Your task to perform on an android device: uninstall "Adobe Acrobat Reader" Image 0: 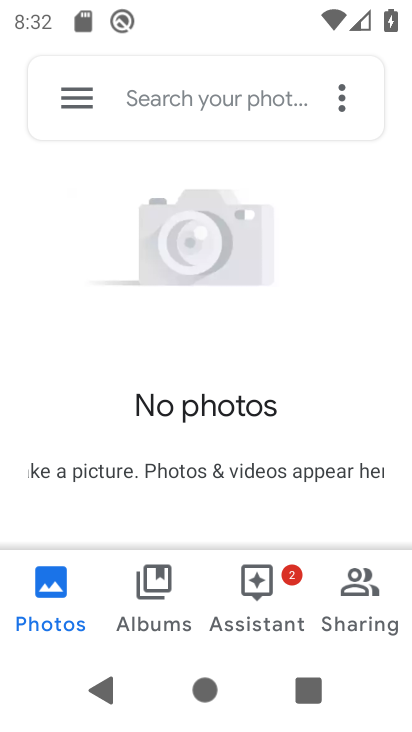
Step 0: press home button
Your task to perform on an android device: uninstall "Adobe Acrobat Reader" Image 1: 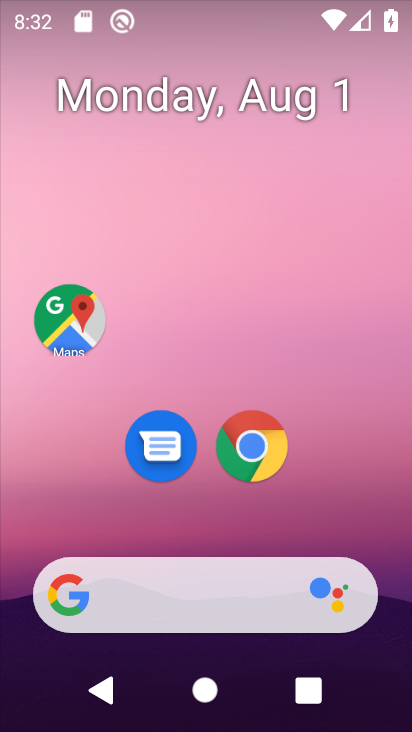
Step 1: drag from (163, 511) to (143, 117)
Your task to perform on an android device: uninstall "Adobe Acrobat Reader" Image 2: 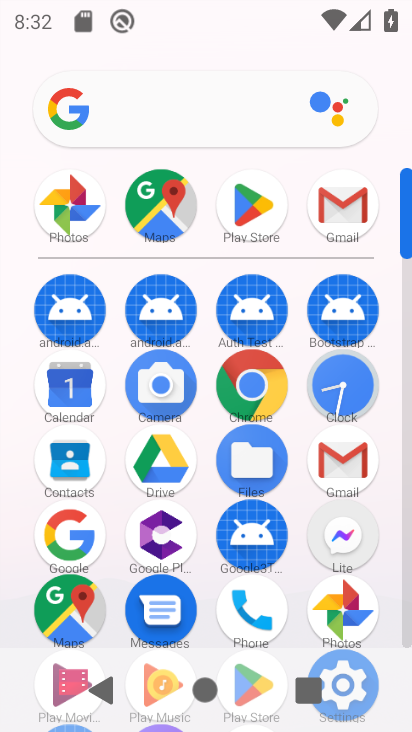
Step 2: click (249, 189)
Your task to perform on an android device: uninstall "Adobe Acrobat Reader" Image 3: 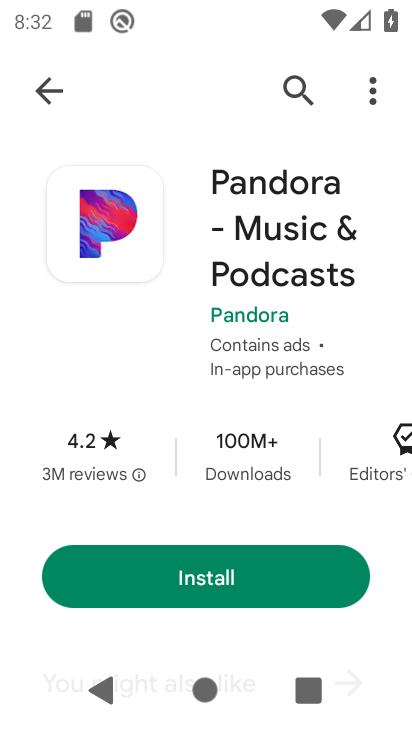
Step 3: click (342, 89)
Your task to perform on an android device: uninstall "Adobe Acrobat Reader" Image 4: 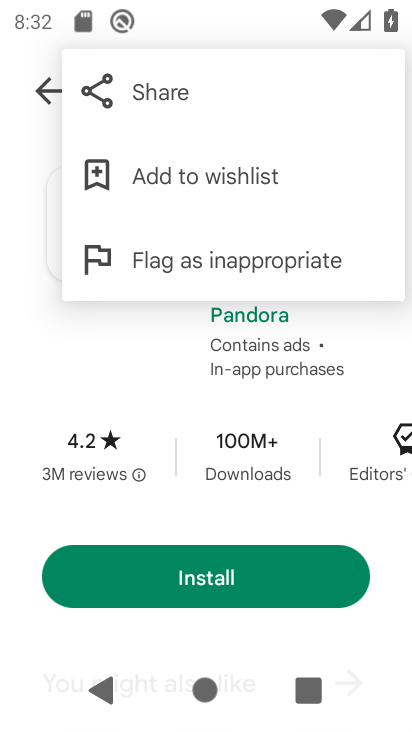
Step 4: click (32, 140)
Your task to perform on an android device: uninstall "Adobe Acrobat Reader" Image 5: 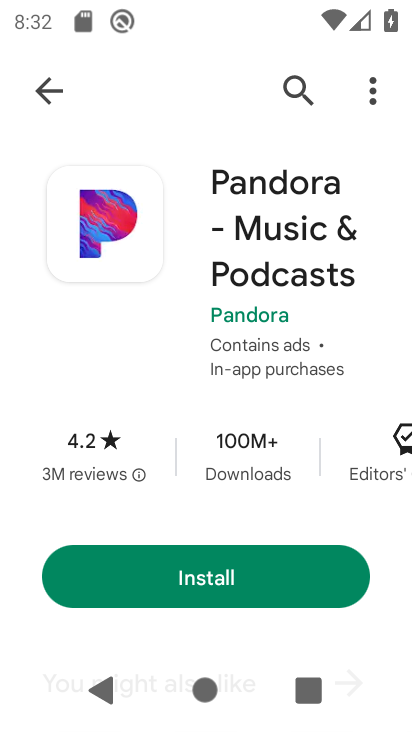
Step 5: click (282, 82)
Your task to perform on an android device: uninstall "Adobe Acrobat Reader" Image 6: 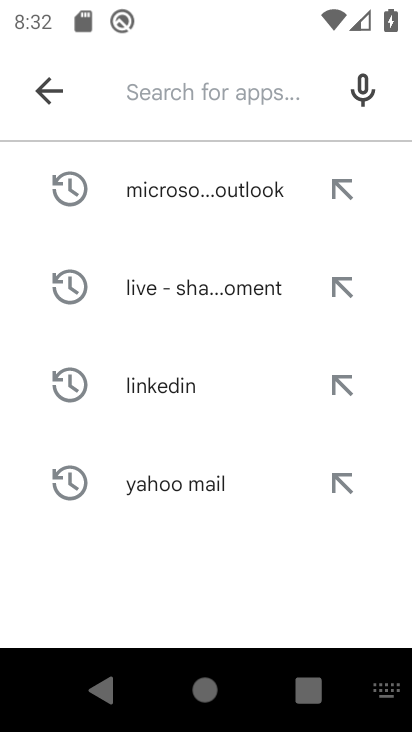
Step 6: type "Adobe Acrobat Reader"
Your task to perform on an android device: uninstall "Adobe Acrobat Reader" Image 7: 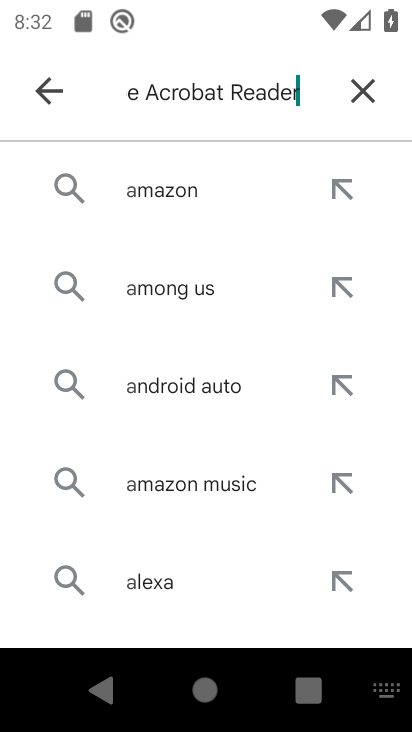
Step 7: type ""
Your task to perform on an android device: uninstall "Adobe Acrobat Reader" Image 8: 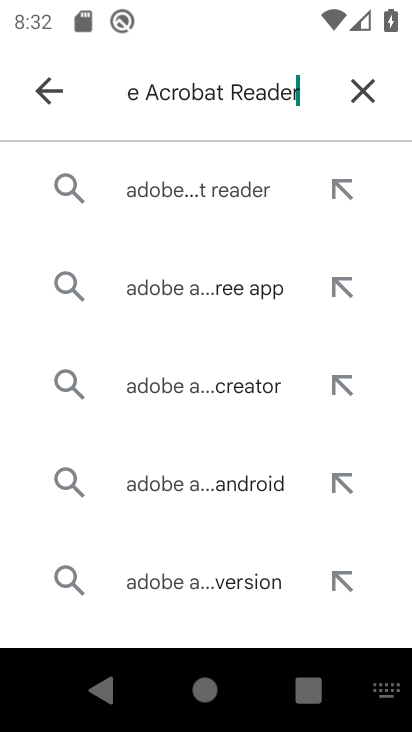
Step 8: click (203, 188)
Your task to perform on an android device: uninstall "Adobe Acrobat Reader" Image 9: 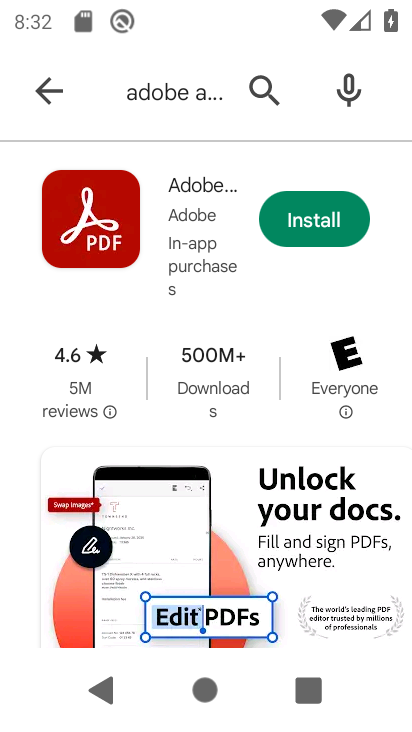
Step 9: click (188, 190)
Your task to perform on an android device: uninstall "Adobe Acrobat Reader" Image 10: 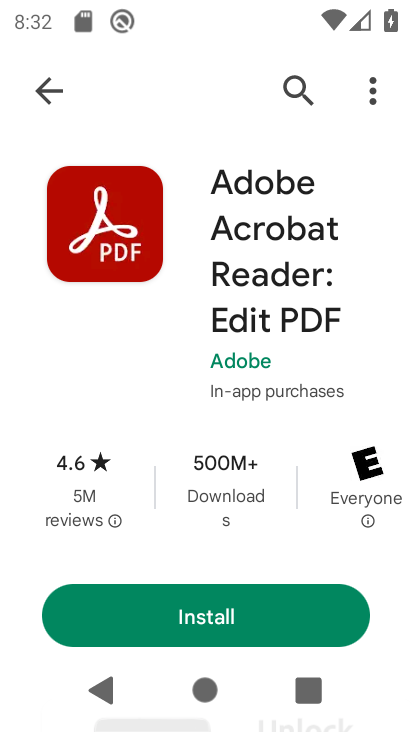
Step 10: task complete